Your task to perform on an android device: open app "Google Home" (install if not already installed) Image 0: 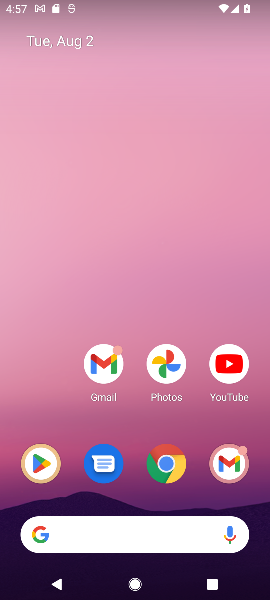
Step 0: click (38, 471)
Your task to perform on an android device: open app "Google Home" (install if not already installed) Image 1: 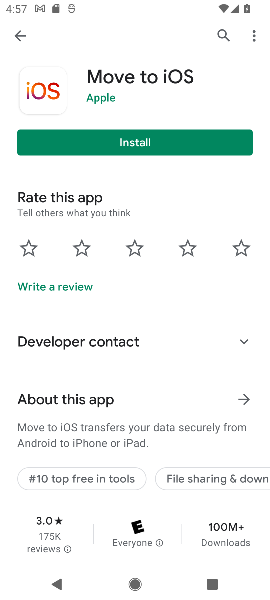
Step 1: click (225, 31)
Your task to perform on an android device: open app "Google Home" (install if not already installed) Image 2: 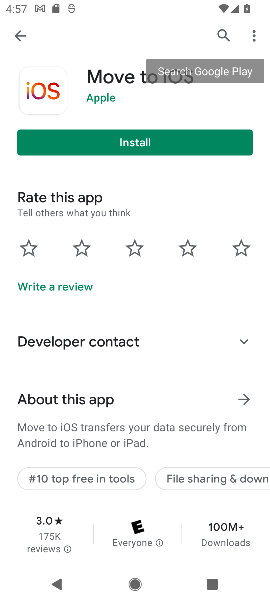
Step 2: click (220, 35)
Your task to perform on an android device: open app "Google Home" (install if not already installed) Image 3: 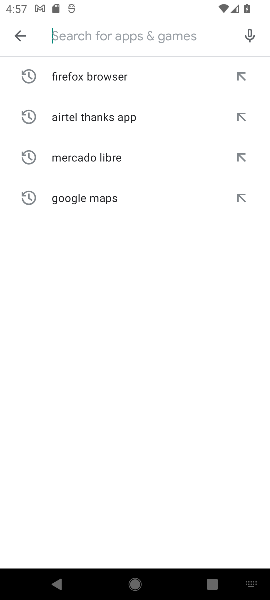
Step 3: type "Google Home"
Your task to perform on an android device: open app "Google Home" (install if not already installed) Image 4: 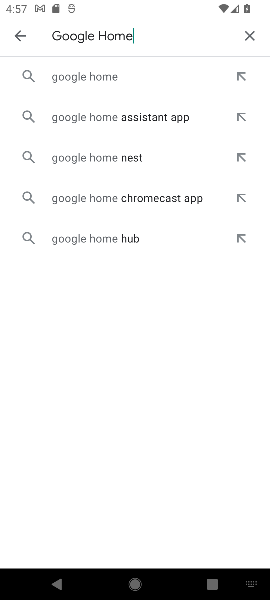
Step 4: click (85, 81)
Your task to perform on an android device: open app "Google Home" (install if not already installed) Image 5: 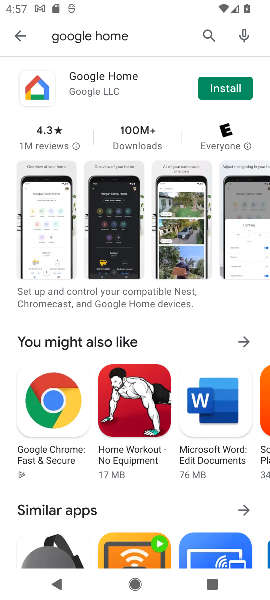
Step 5: click (230, 86)
Your task to perform on an android device: open app "Google Home" (install if not already installed) Image 6: 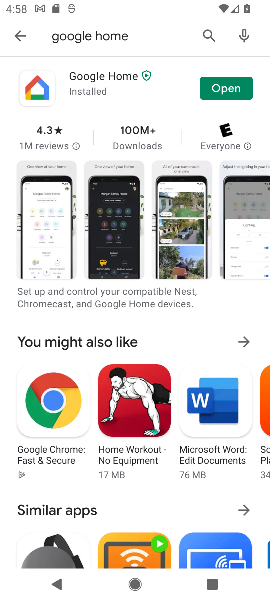
Step 6: click (236, 89)
Your task to perform on an android device: open app "Google Home" (install if not already installed) Image 7: 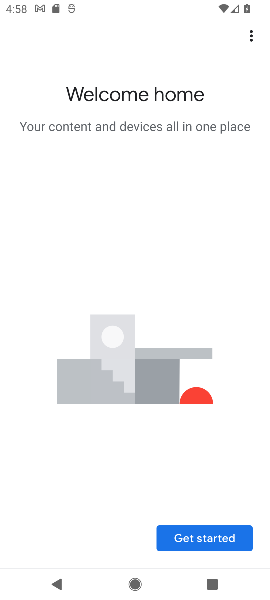
Step 7: task complete